Your task to perform on an android device: Open calendar and show me the second week of next month Image 0: 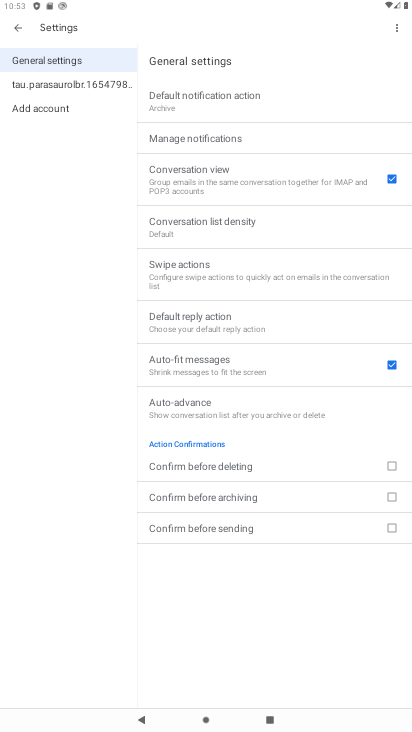
Step 0: press home button
Your task to perform on an android device: Open calendar and show me the second week of next month Image 1: 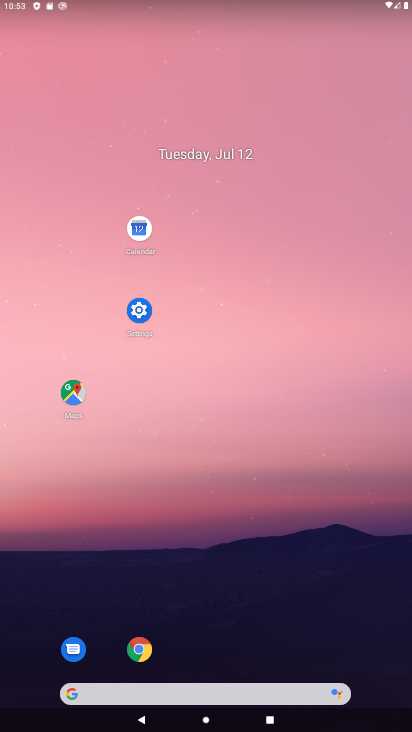
Step 1: click (130, 212)
Your task to perform on an android device: Open calendar and show me the second week of next month Image 2: 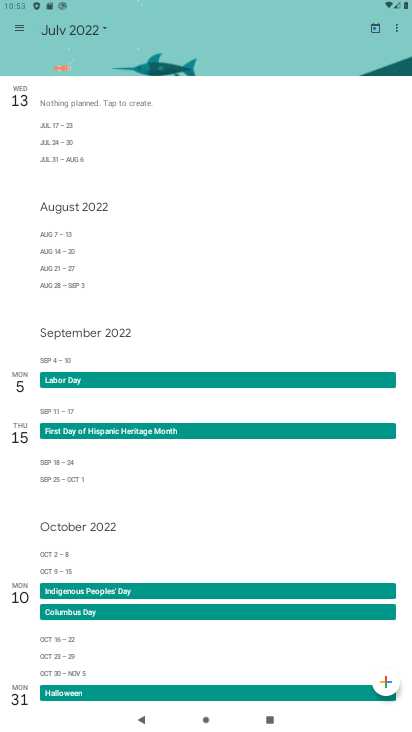
Step 2: click (5, 35)
Your task to perform on an android device: Open calendar and show me the second week of next month Image 3: 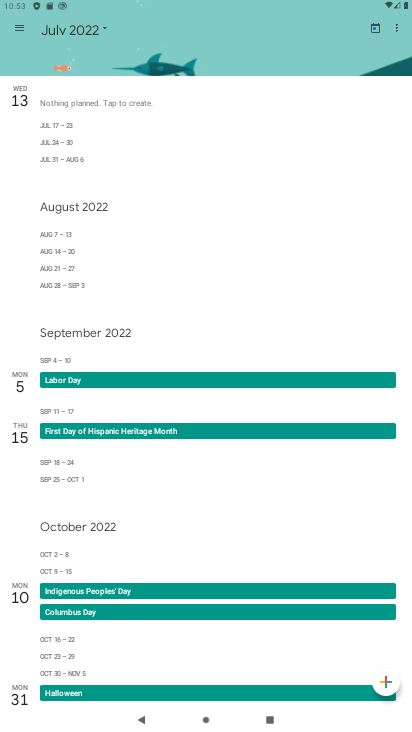
Step 3: click (26, 14)
Your task to perform on an android device: Open calendar and show me the second week of next month Image 4: 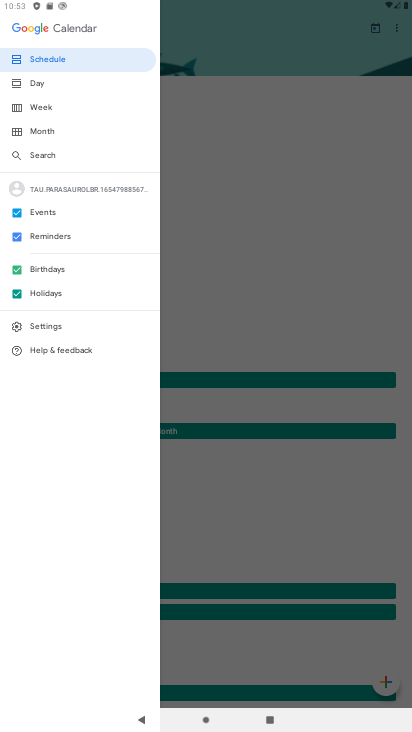
Step 4: click (53, 102)
Your task to perform on an android device: Open calendar and show me the second week of next month Image 5: 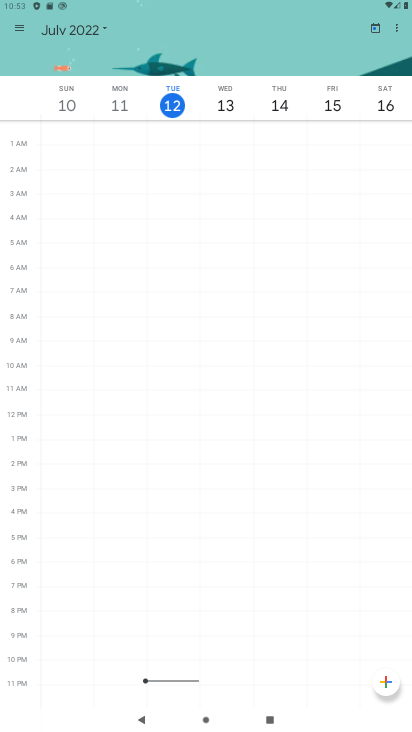
Step 5: click (89, 21)
Your task to perform on an android device: Open calendar and show me the second week of next month Image 6: 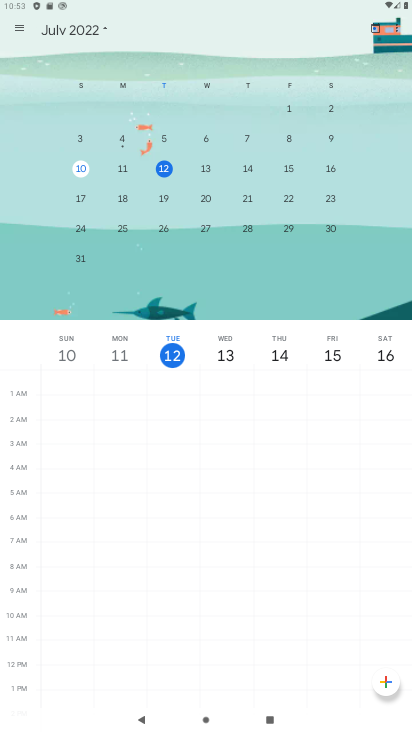
Step 6: drag from (355, 198) to (20, 151)
Your task to perform on an android device: Open calendar and show me the second week of next month Image 7: 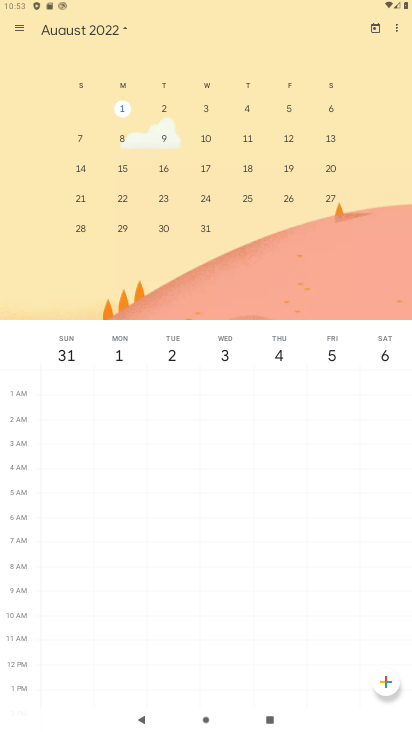
Step 7: click (306, 166)
Your task to perform on an android device: Open calendar and show me the second week of next month Image 8: 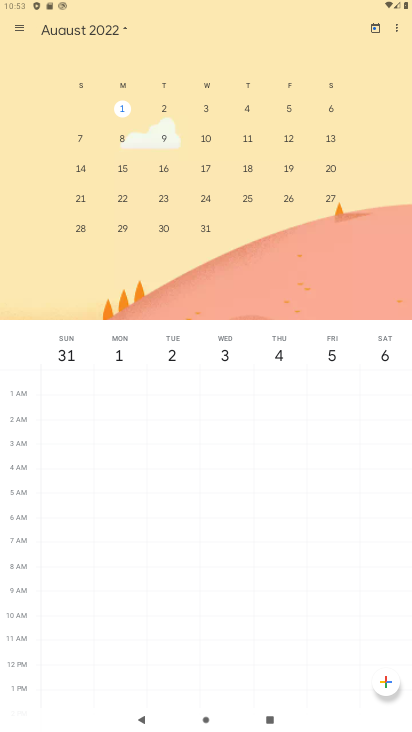
Step 8: click (15, 23)
Your task to perform on an android device: Open calendar and show me the second week of next month Image 9: 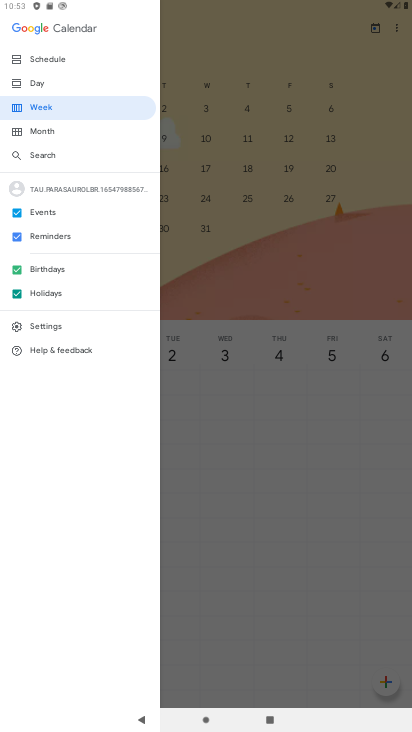
Step 9: click (66, 99)
Your task to perform on an android device: Open calendar and show me the second week of next month Image 10: 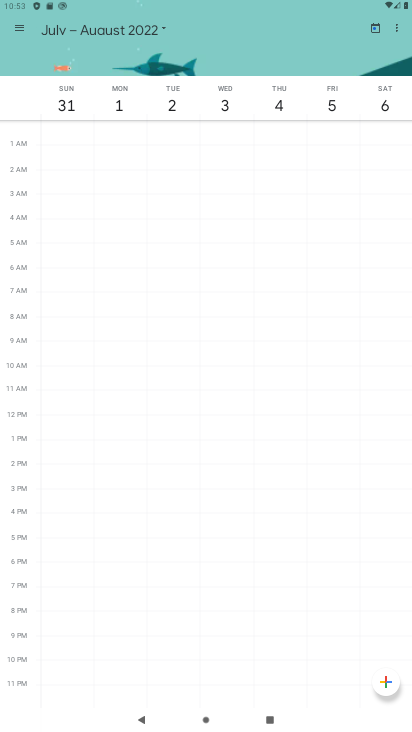
Step 10: task complete